Your task to perform on an android device: all mails in gmail Image 0: 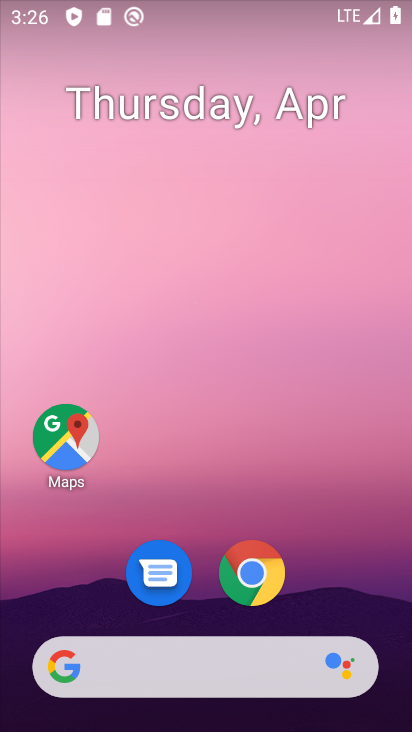
Step 0: drag from (327, 604) to (243, 110)
Your task to perform on an android device: all mails in gmail Image 1: 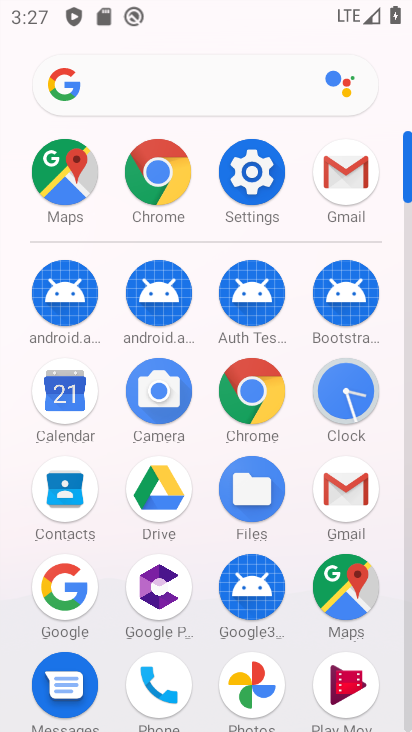
Step 1: click (363, 503)
Your task to perform on an android device: all mails in gmail Image 2: 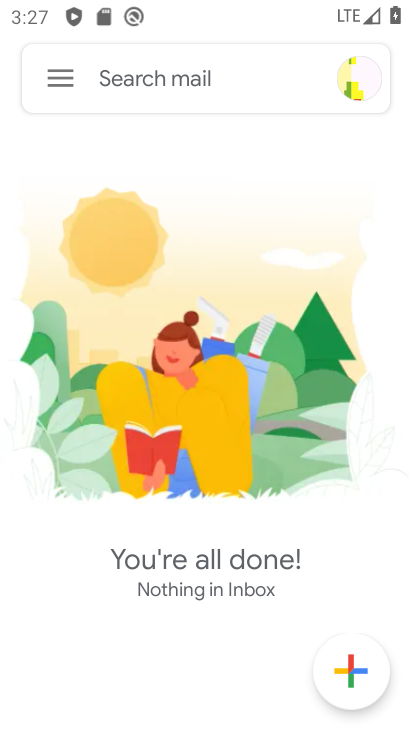
Step 2: click (51, 79)
Your task to perform on an android device: all mails in gmail Image 3: 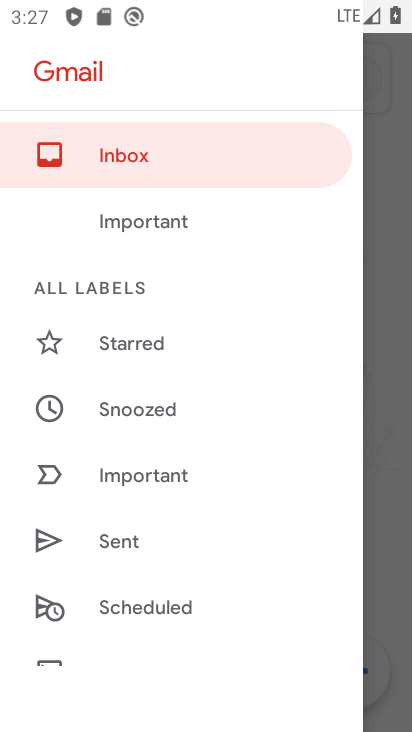
Step 3: drag from (152, 601) to (211, 203)
Your task to perform on an android device: all mails in gmail Image 4: 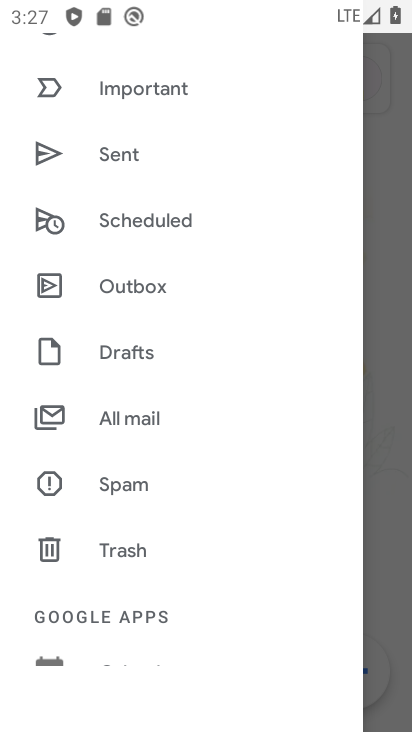
Step 4: click (190, 404)
Your task to perform on an android device: all mails in gmail Image 5: 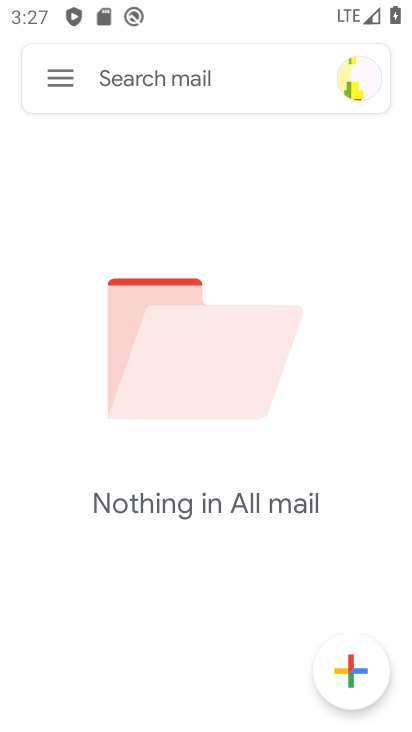
Step 5: task complete